Your task to perform on an android device: Search for the best rated Bluetooth earbuds on Ali express Image 0: 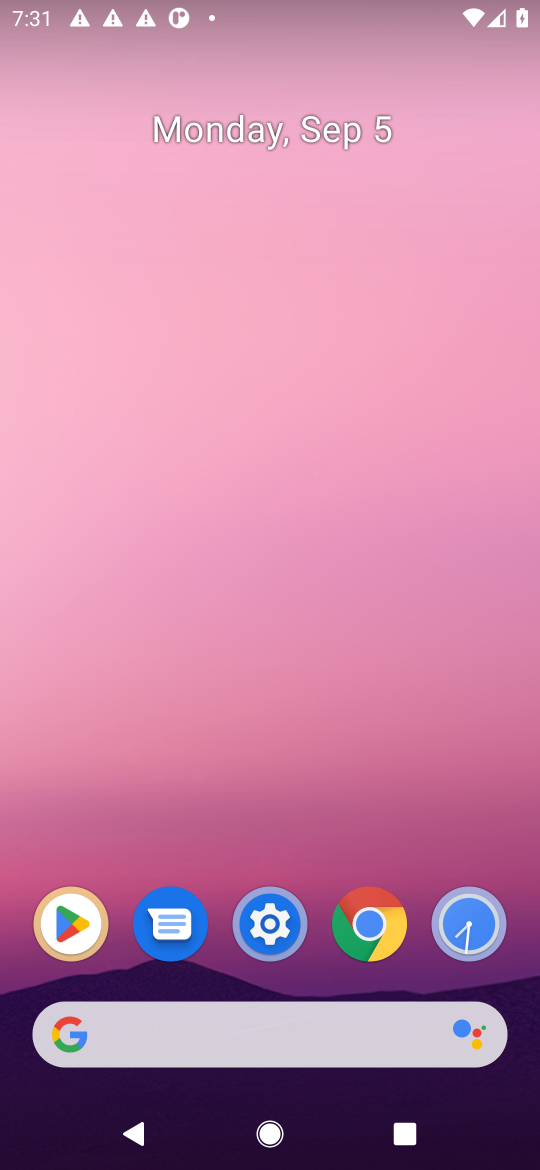
Step 0: click (376, 1035)
Your task to perform on an android device: Search for the best rated Bluetooth earbuds on Ali express Image 1: 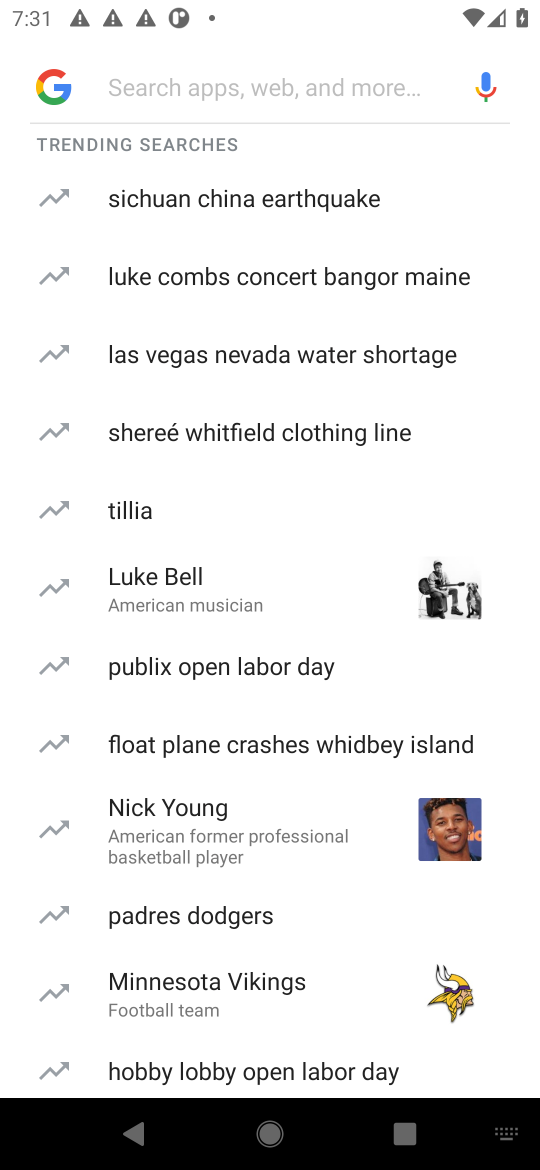
Step 1: press enter
Your task to perform on an android device: Search for the best rated Bluetooth earbuds on Ali express Image 2: 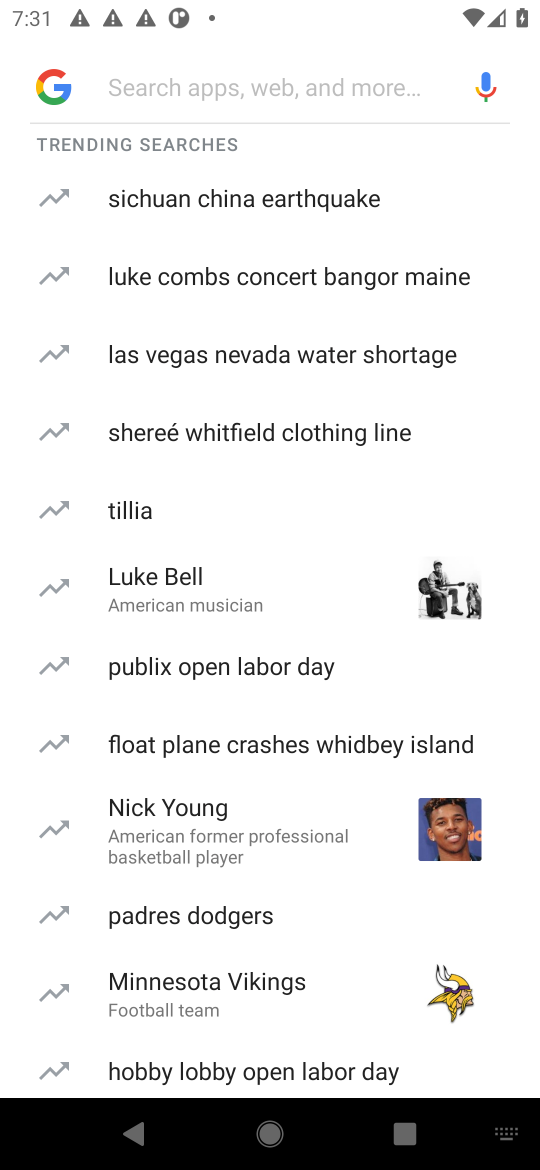
Step 2: type "aliexpress"
Your task to perform on an android device: Search for the best rated Bluetooth earbuds on Ali express Image 3: 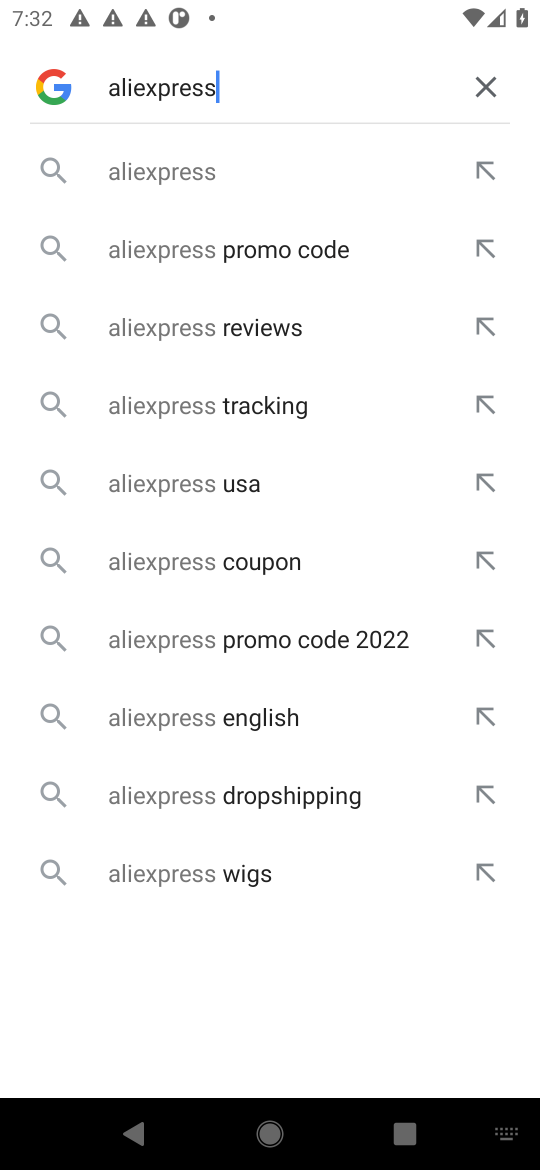
Step 3: click (220, 174)
Your task to perform on an android device: Search for the best rated Bluetooth earbuds on Ali express Image 4: 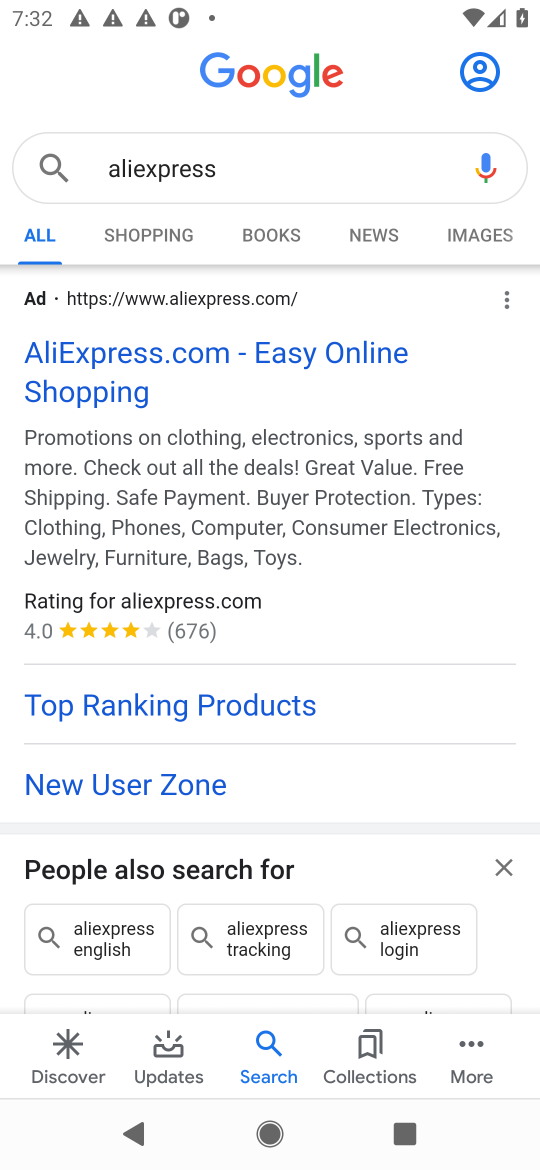
Step 4: click (129, 343)
Your task to perform on an android device: Search for the best rated Bluetooth earbuds on Ali express Image 5: 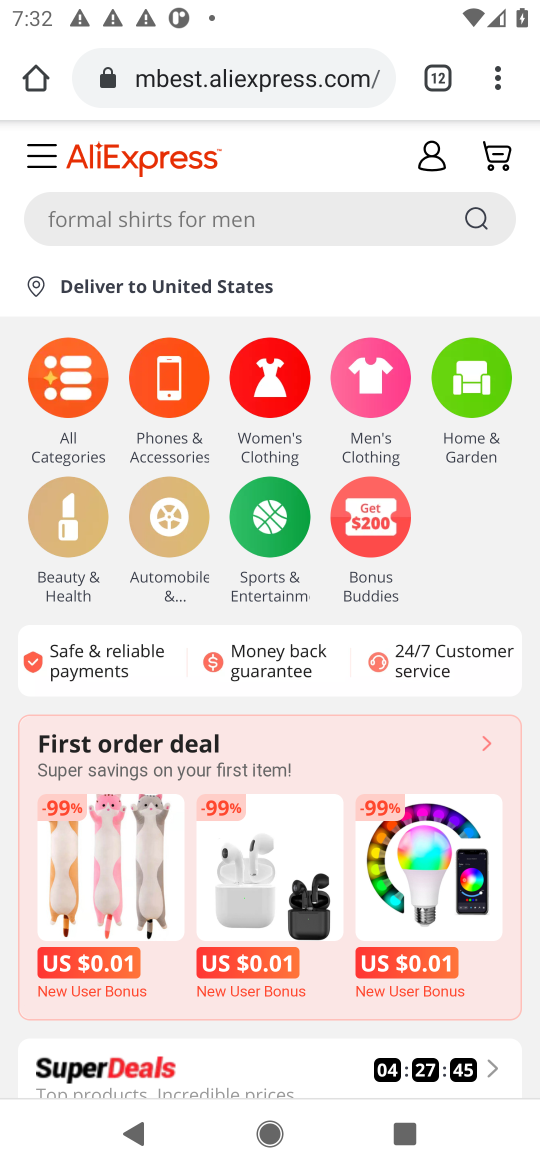
Step 5: click (114, 216)
Your task to perform on an android device: Search for the best rated Bluetooth earbuds on Ali express Image 6: 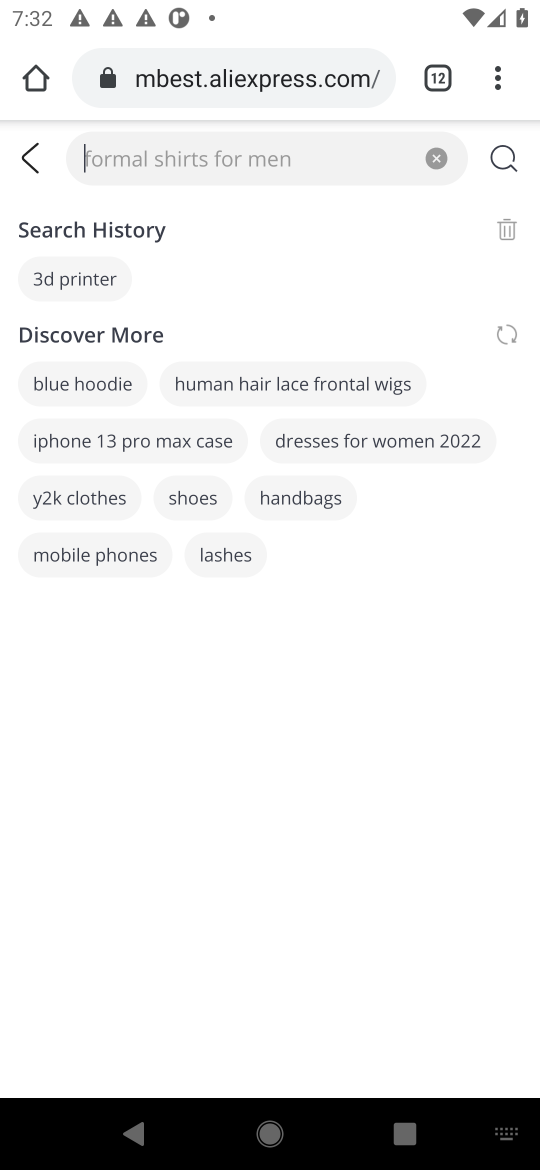
Step 6: type "best rated bluetooth earbuds"
Your task to perform on an android device: Search for the best rated Bluetooth earbuds on Ali express Image 7: 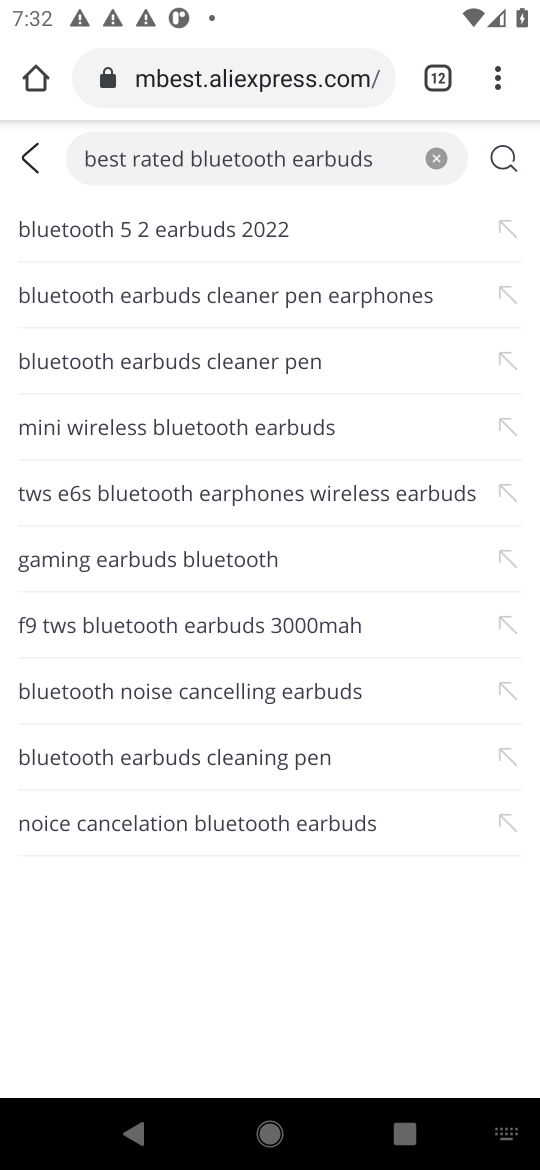
Step 7: click (503, 159)
Your task to perform on an android device: Search for the best rated Bluetooth earbuds on Ali express Image 8: 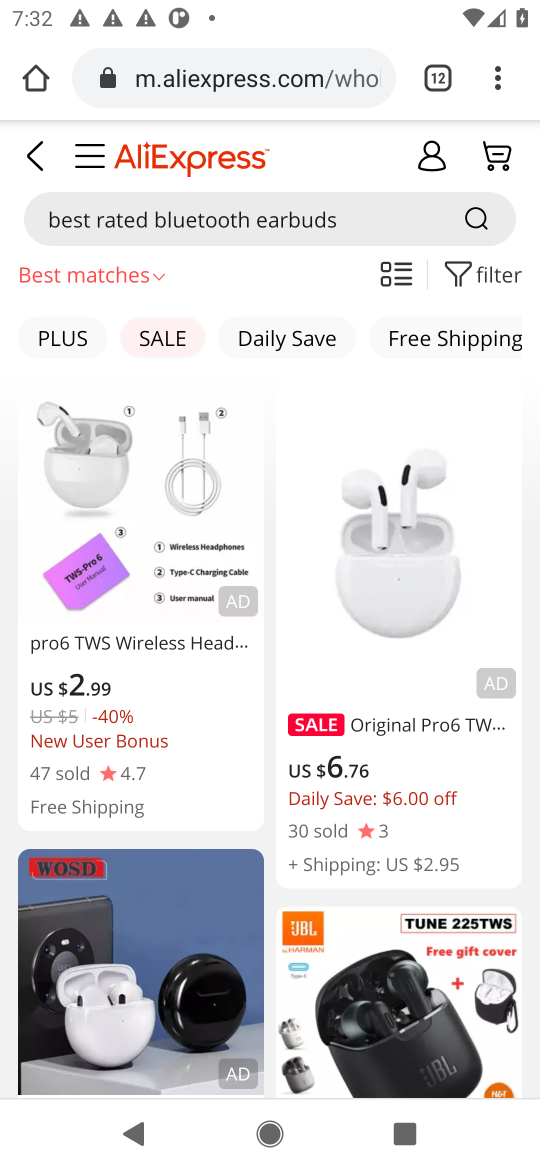
Step 8: task complete